Your task to perform on an android device: Go to Reddit.com Image 0: 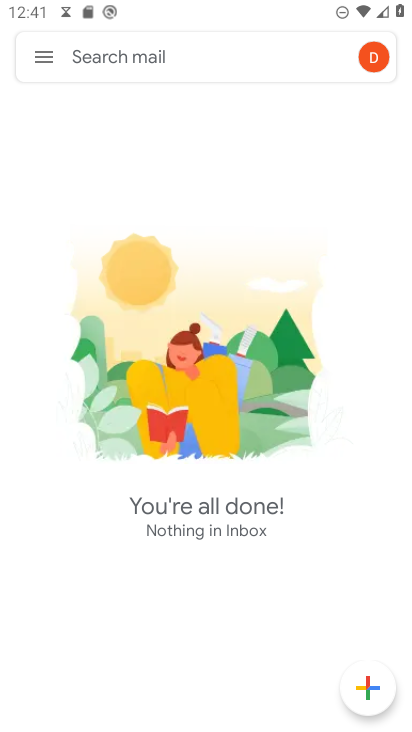
Step 0: press home button
Your task to perform on an android device: Go to Reddit.com Image 1: 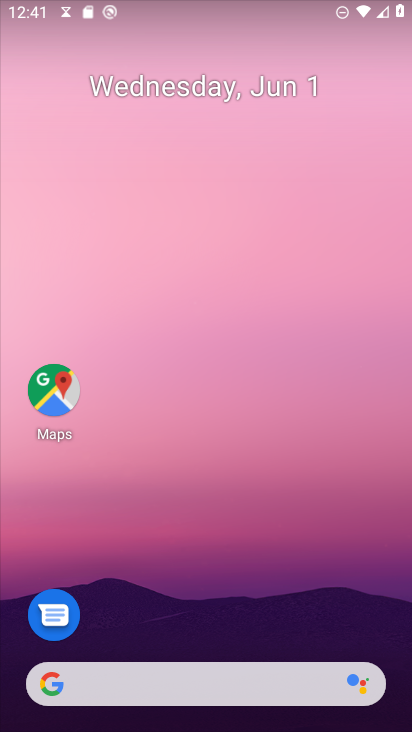
Step 1: drag from (267, 516) to (292, 82)
Your task to perform on an android device: Go to Reddit.com Image 2: 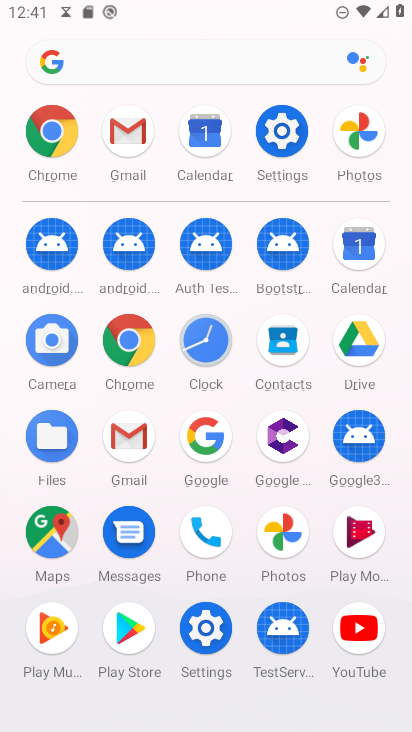
Step 2: click (124, 341)
Your task to perform on an android device: Go to Reddit.com Image 3: 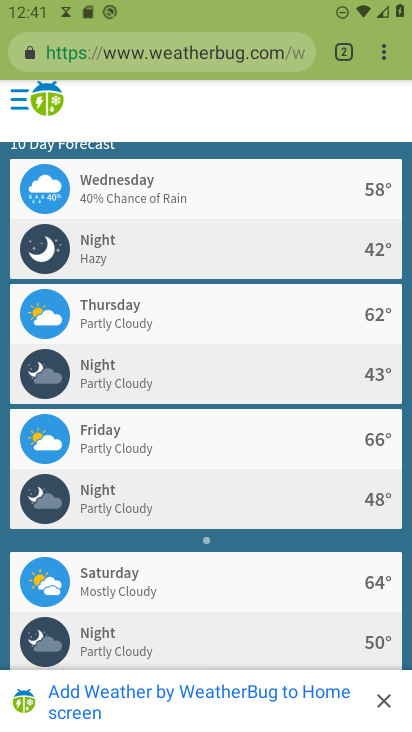
Step 3: click (304, 56)
Your task to perform on an android device: Go to Reddit.com Image 4: 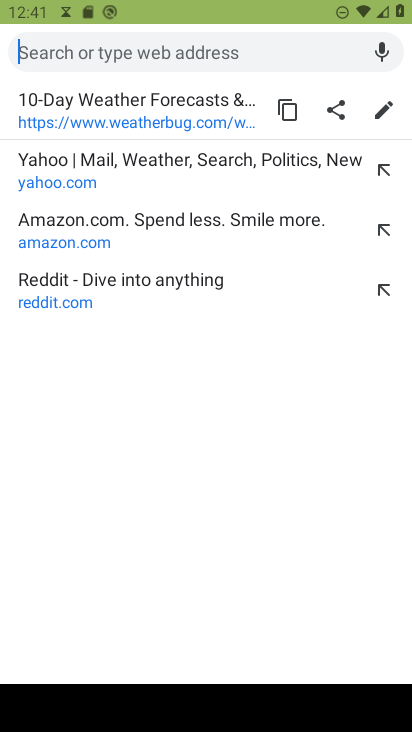
Step 4: type "reddit.com"
Your task to perform on an android device: Go to Reddit.com Image 5: 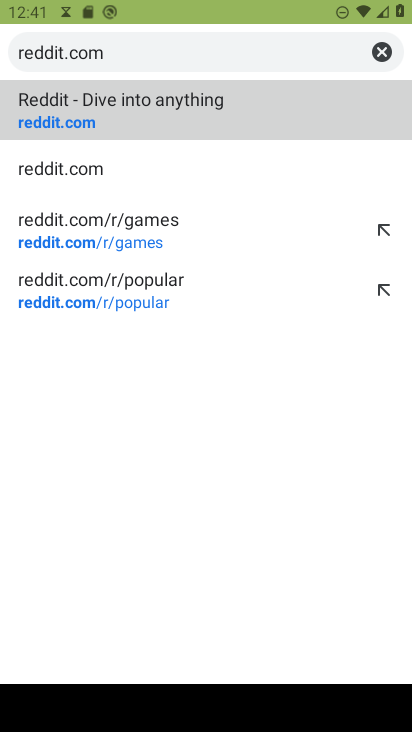
Step 5: click (66, 178)
Your task to perform on an android device: Go to Reddit.com Image 6: 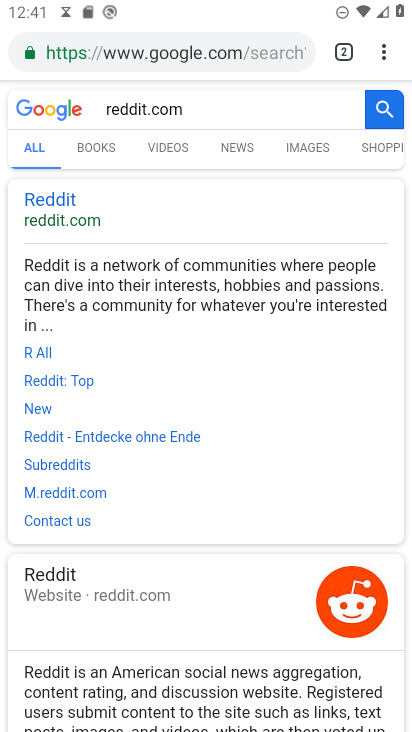
Step 6: click (59, 197)
Your task to perform on an android device: Go to Reddit.com Image 7: 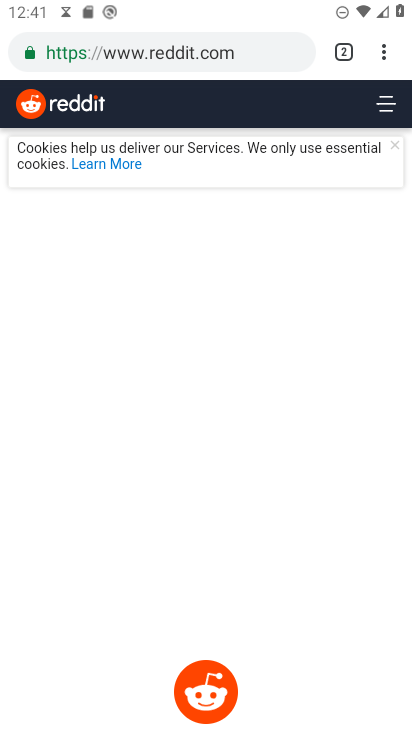
Step 7: task complete